Your task to perform on an android device: Open Wikipedia Image 0: 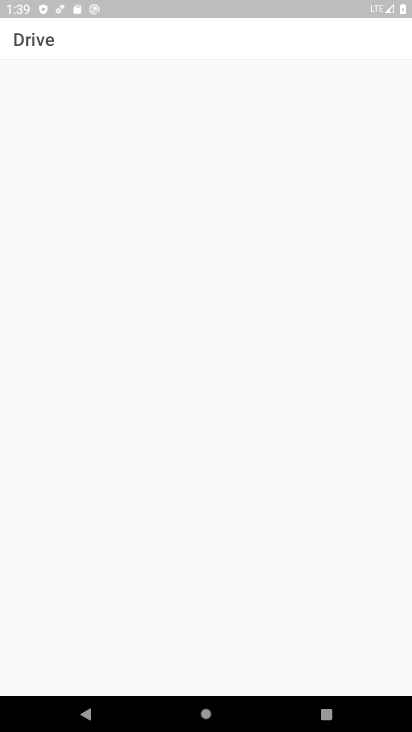
Step 0: press home button
Your task to perform on an android device: Open Wikipedia Image 1: 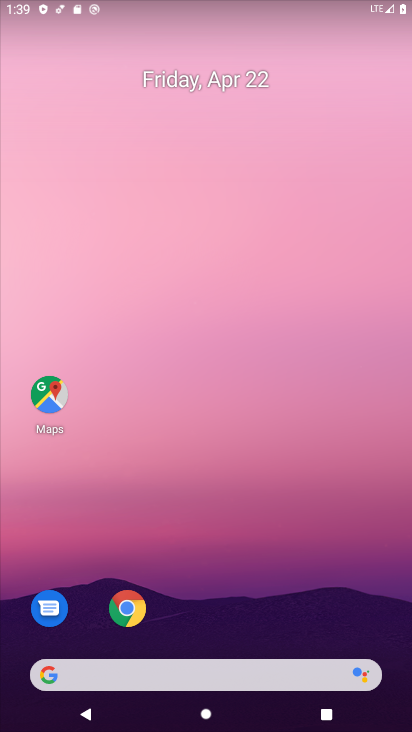
Step 1: drag from (246, 700) to (258, 129)
Your task to perform on an android device: Open Wikipedia Image 2: 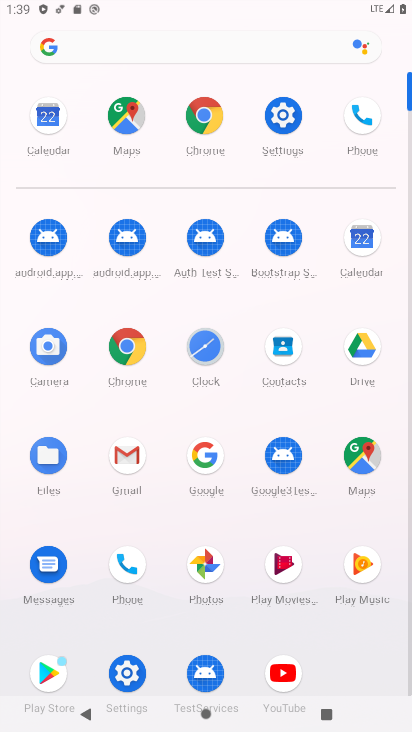
Step 2: click (182, 104)
Your task to perform on an android device: Open Wikipedia Image 3: 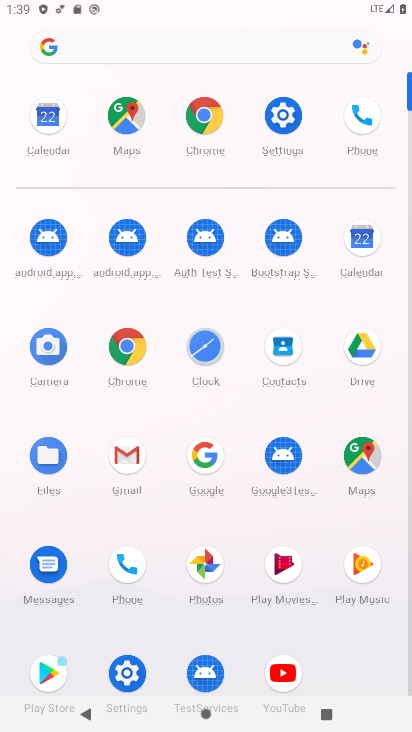
Step 3: click (204, 124)
Your task to perform on an android device: Open Wikipedia Image 4: 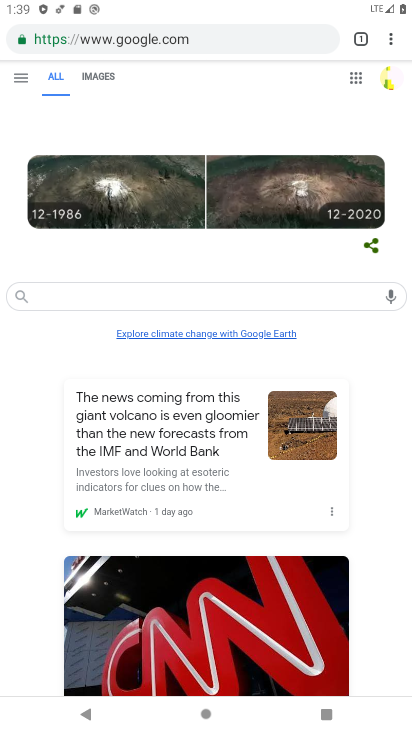
Step 4: click (213, 45)
Your task to perform on an android device: Open Wikipedia Image 5: 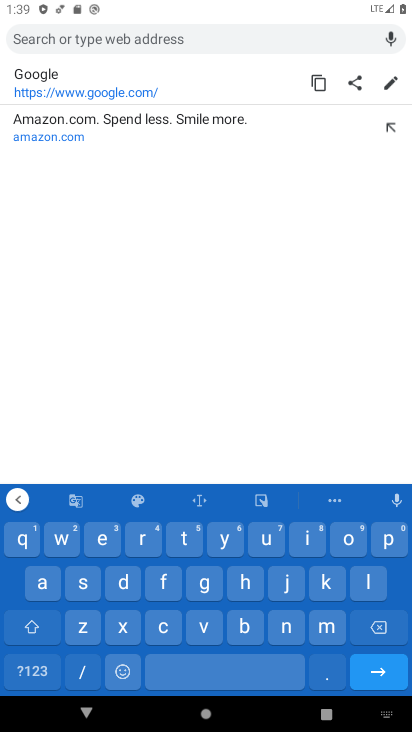
Step 5: press back button
Your task to perform on an android device: Open Wikipedia Image 6: 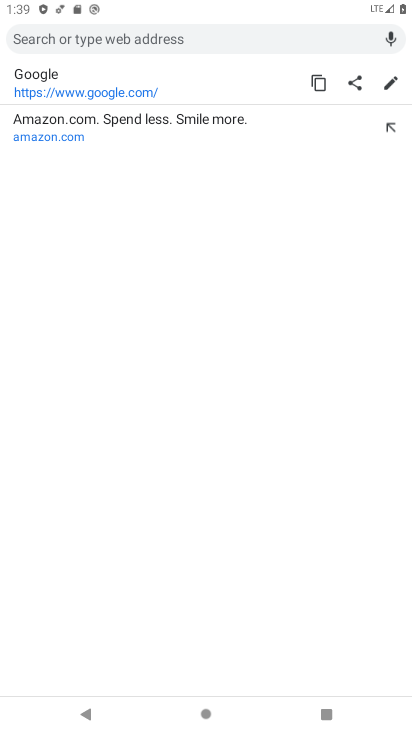
Step 6: click (157, 38)
Your task to perform on an android device: Open Wikipedia Image 7: 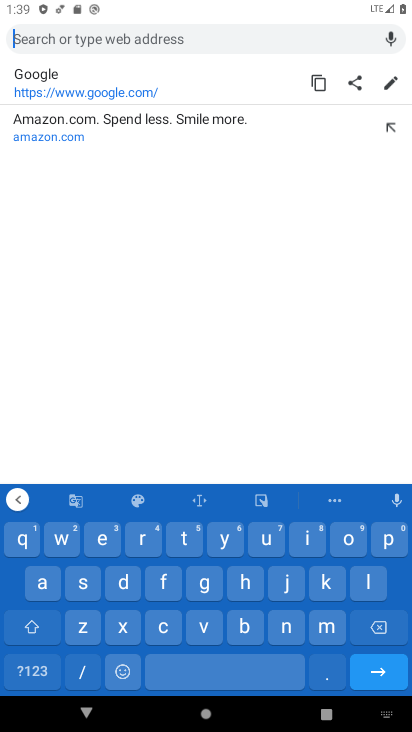
Step 7: click (64, 547)
Your task to perform on an android device: Open Wikipedia Image 8: 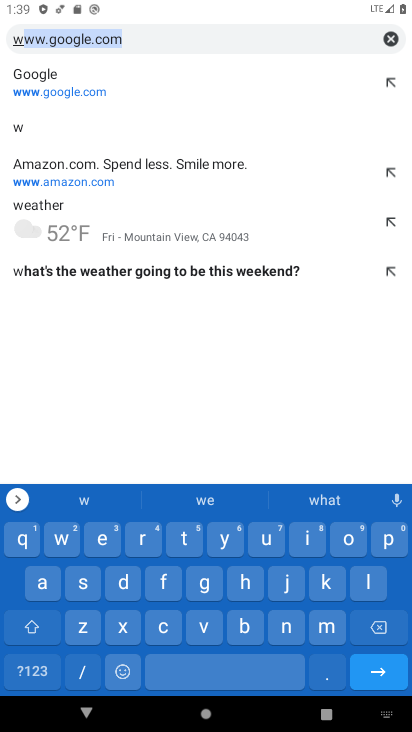
Step 8: click (314, 542)
Your task to perform on an android device: Open Wikipedia Image 9: 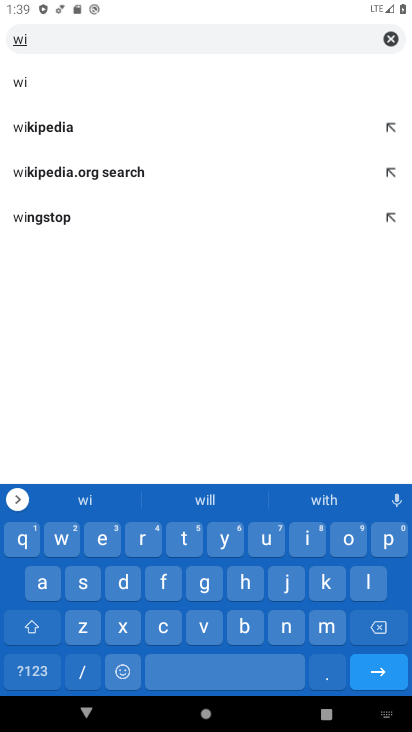
Step 9: click (73, 134)
Your task to perform on an android device: Open Wikipedia Image 10: 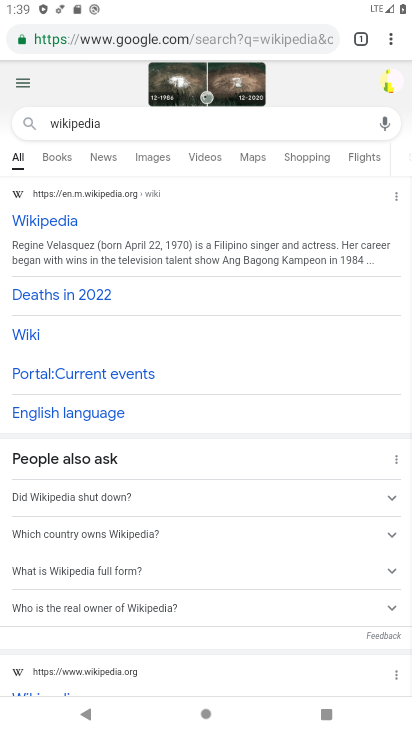
Step 10: click (29, 224)
Your task to perform on an android device: Open Wikipedia Image 11: 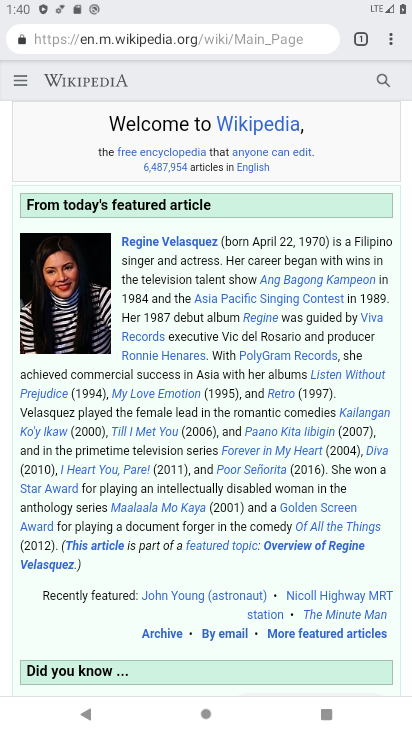
Step 11: task complete